Your task to perform on an android device: Go to privacy settings Image 0: 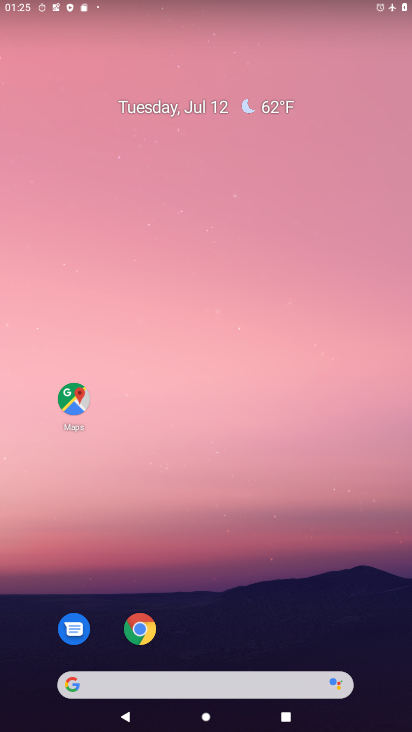
Step 0: drag from (236, 646) to (253, 59)
Your task to perform on an android device: Go to privacy settings Image 1: 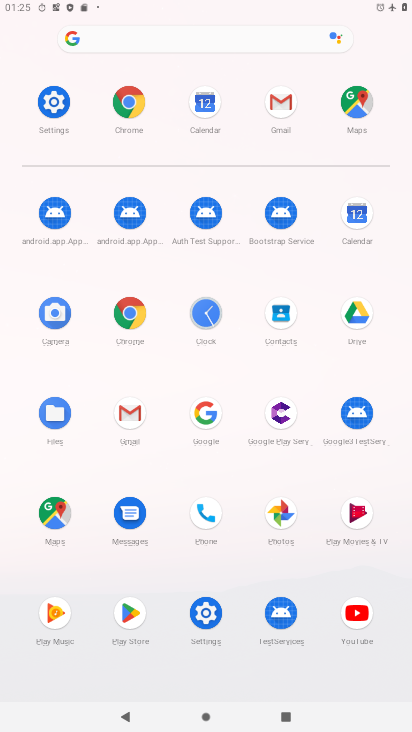
Step 1: click (199, 618)
Your task to perform on an android device: Go to privacy settings Image 2: 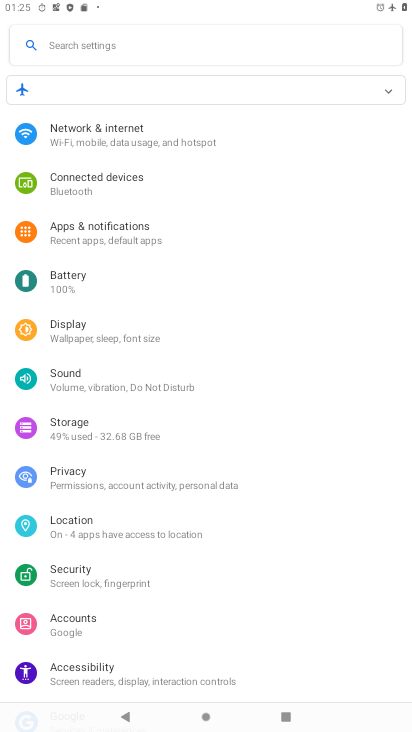
Step 2: click (60, 465)
Your task to perform on an android device: Go to privacy settings Image 3: 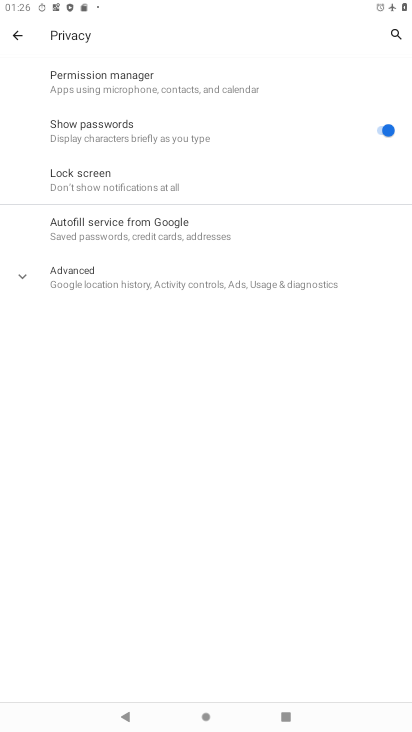
Step 3: task complete